Your task to perform on an android device: turn on the 12-hour format for clock Image 0: 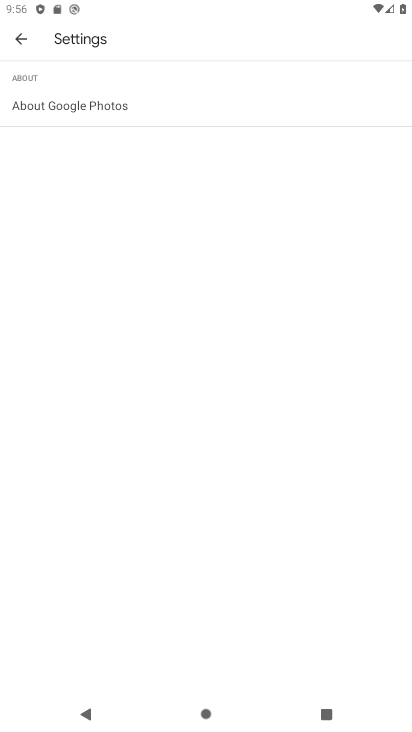
Step 0: press home button
Your task to perform on an android device: turn on the 12-hour format for clock Image 1: 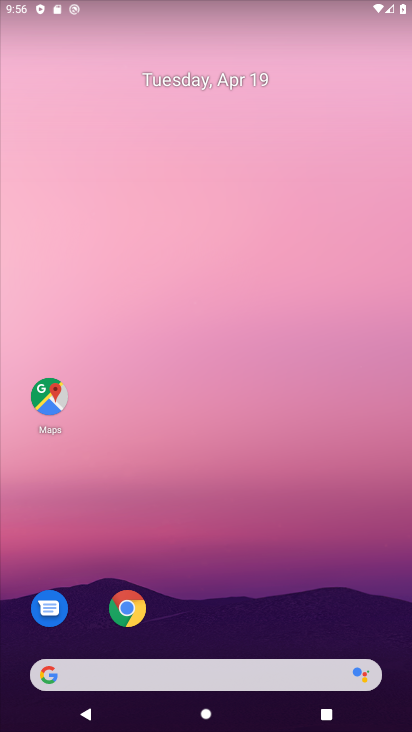
Step 1: drag from (216, 573) to (215, 200)
Your task to perform on an android device: turn on the 12-hour format for clock Image 2: 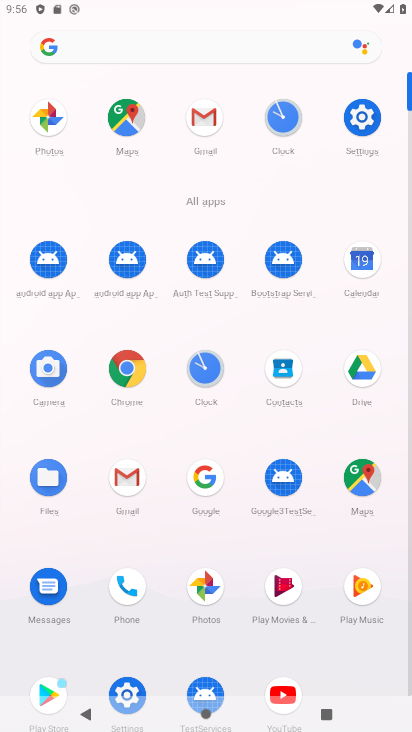
Step 2: click (207, 371)
Your task to perform on an android device: turn on the 12-hour format for clock Image 3: 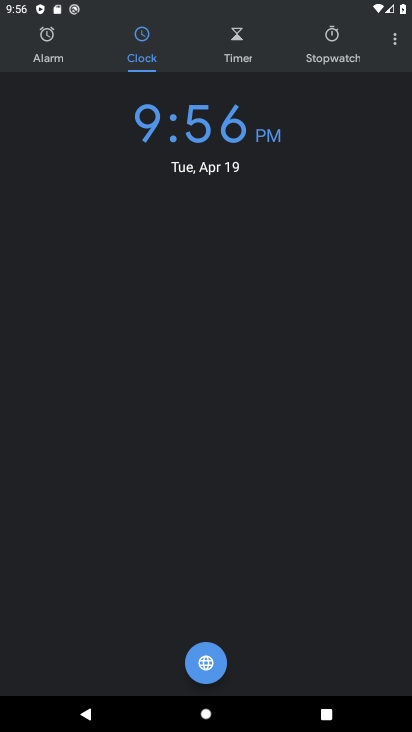
Step 3: click (396, 38)
Your task to perform on an android device: turn on the 12-hour format for clock Image 4: 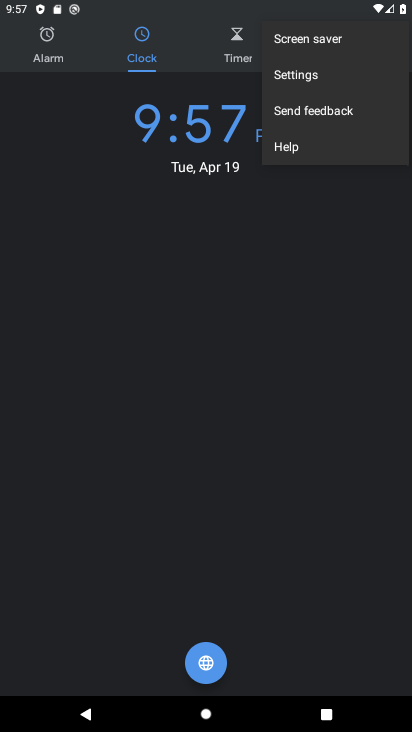
Step 4: click (337, 82)
Your task to perform on an android device: turn on the 12-hour format for clock Image 5: 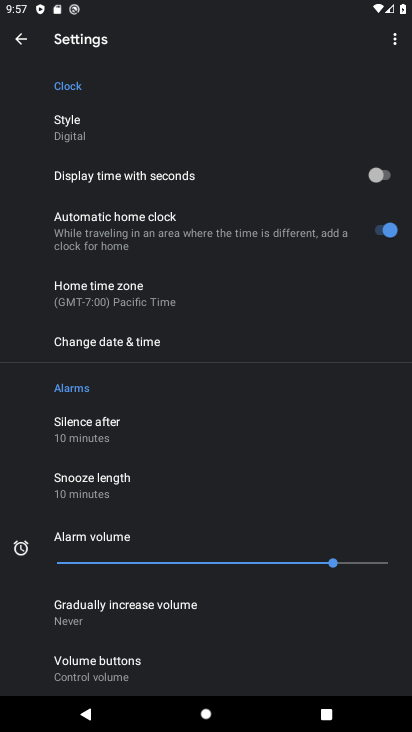
Step 5: click (195, 338)
Your task to perform on an android device: turn on the 12-hour format for clock Image 6: 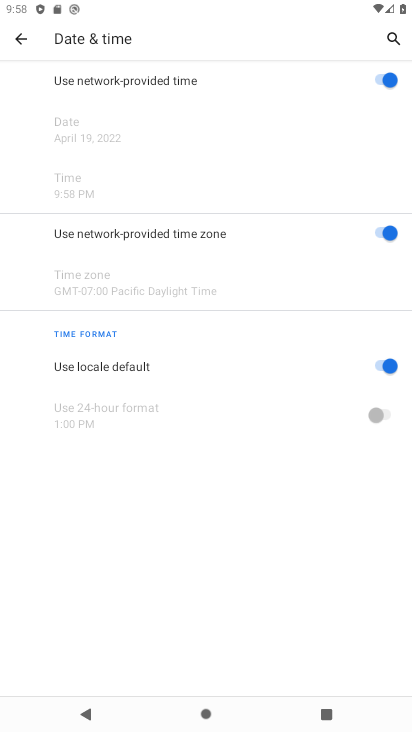
Step 6: task complete